Your task to perform on an android device: Open Amazon Image 0: 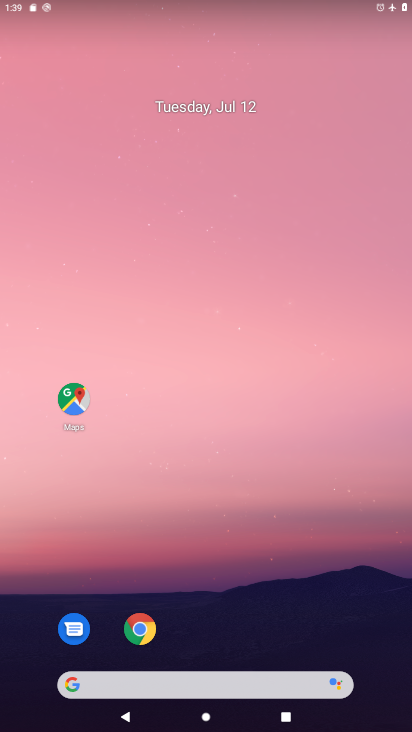
Step 0: drag from (266, 634) to (272, 96)
Your task to perform on an android device: Open Amazon Image 1: 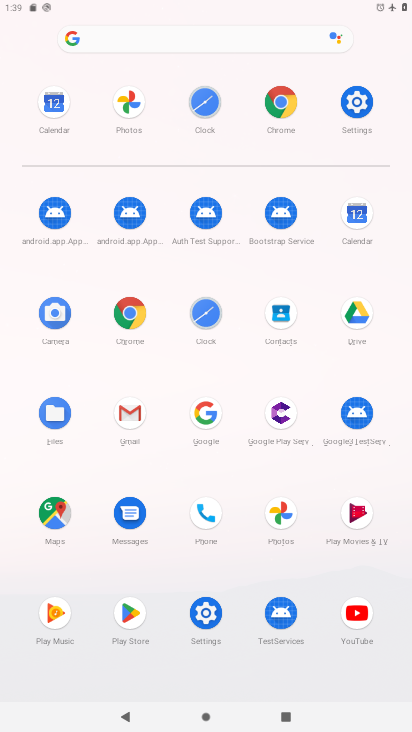
Step 1: click (145, 308)
Your task to perform on an android device: Open Amazon Image 2: 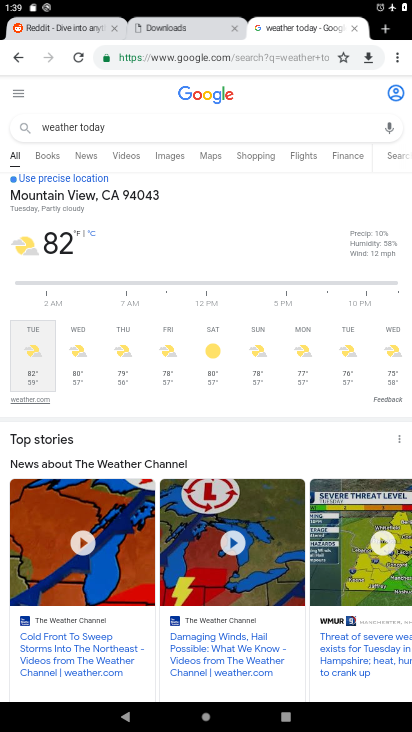
Step 2: drag from (399, 52) to (335, 55)
Your task to perform on an android device: Open Amazon Image 3: 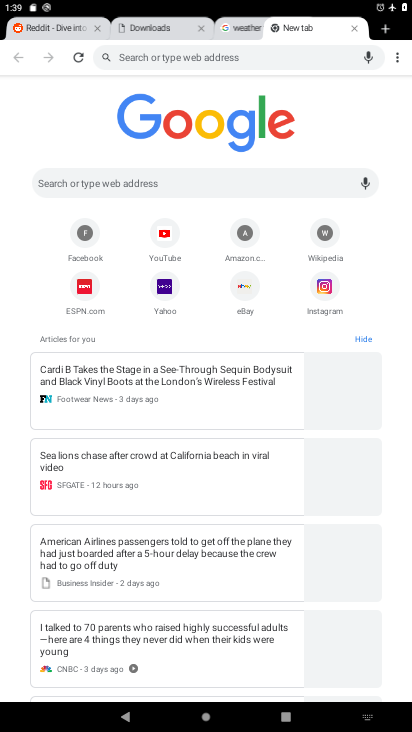
Step 3: click (244, 236)
Your task to perform on an android device: Open Amazon Image 4: 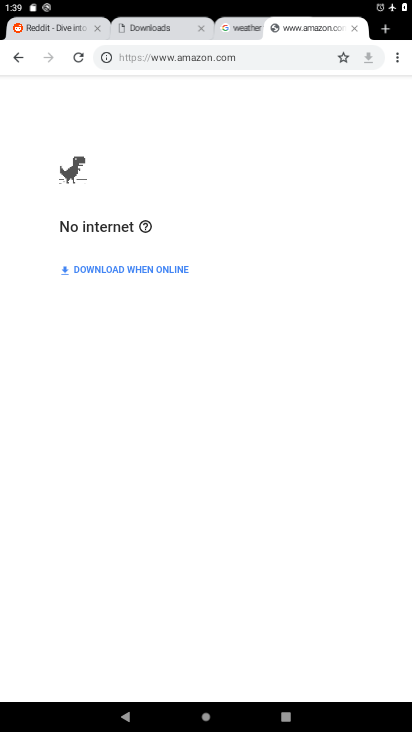
Step 4: task complete